Your task to perform on an android device: Open notification settings Image 0: 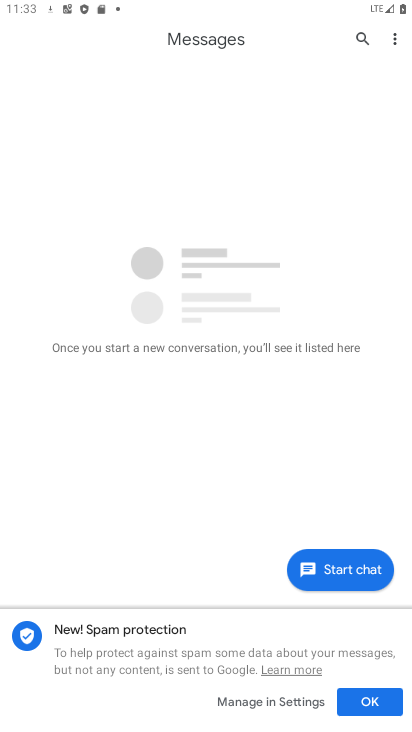
Step 0: press home button
Your task to perform on an android device: Open notification settings Image 1: 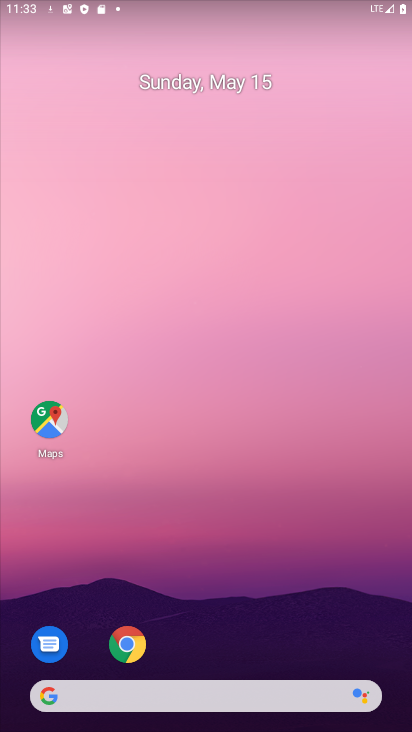
Step 1: drag from (236, 720) to (156, 311)
Your task to perform on an android device: Open notification settings Image 2: 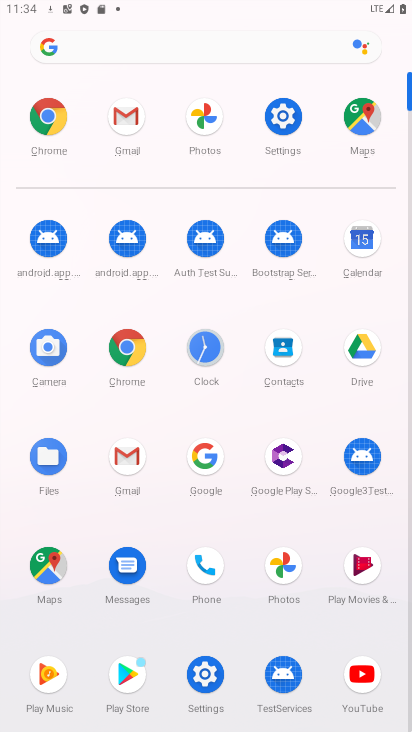
Step 2: click (281, 121)
Your task to perform on an android device: Open notification settings Image 3: 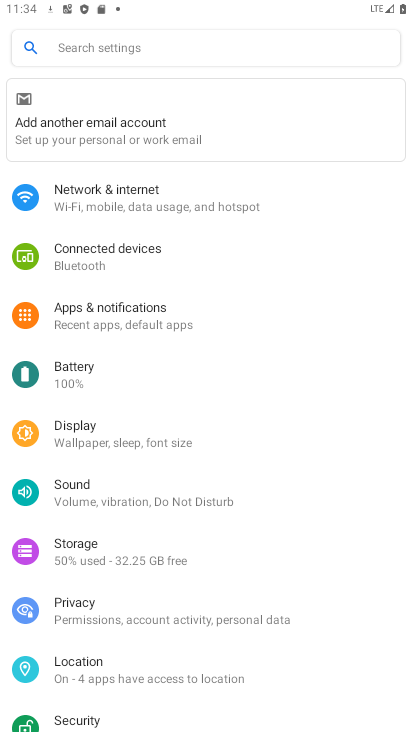
Step 3: click (104, 42)
Your task to perform on an android device: Open notification settings Image 4: 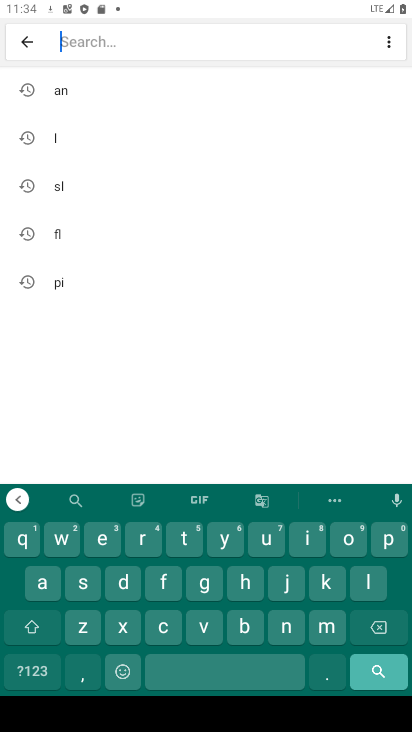
Step 4: click (289, 628)
Your task to perform on an android device: Open notification settings Image 5: 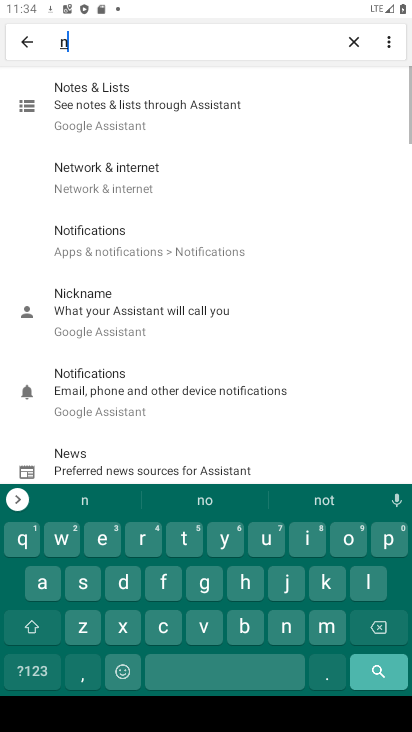
Step 5: click (346, 545)
Your task to perform on an android device: Open notification settings Image 6: 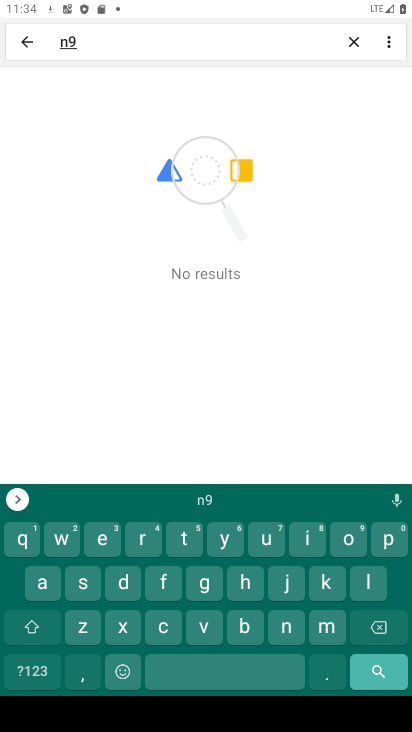
Step 6: click (395, 627)
Your task to perform on an android device: Open notification settings Image 7: 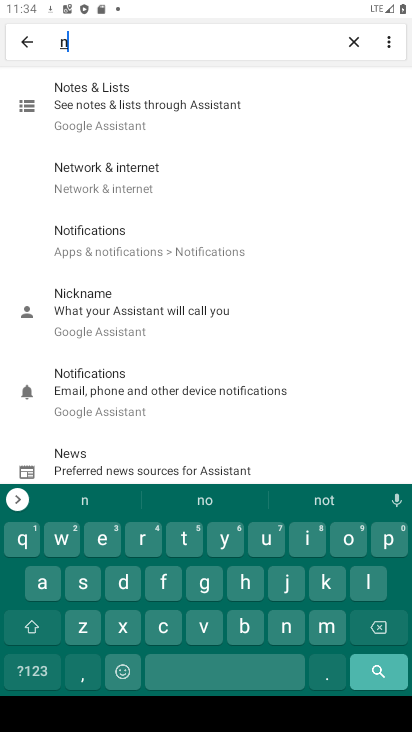
Step 7: click (346, 535)
Your task to perform on an android device: Open notification settings Image 8: 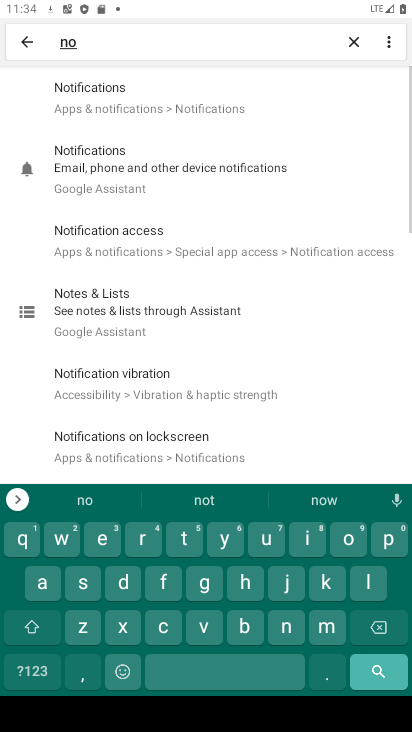
Step 8: click (97, 97)
Your task to perform on an android device: Open notification settings Image 9: 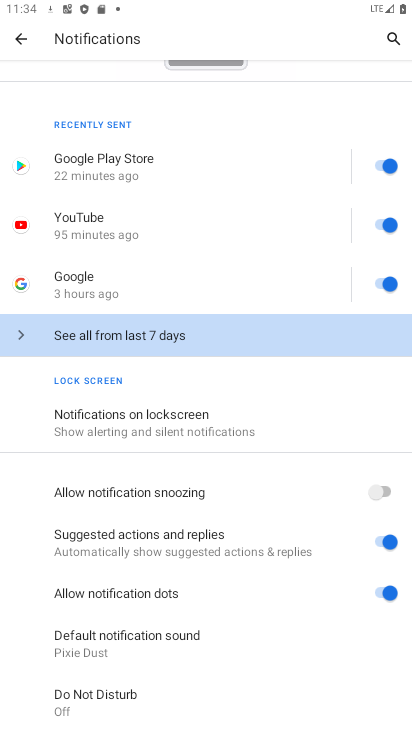
Step 9: click (114, 415)
Your task to perform on an android device: Open notification settings Image 10: 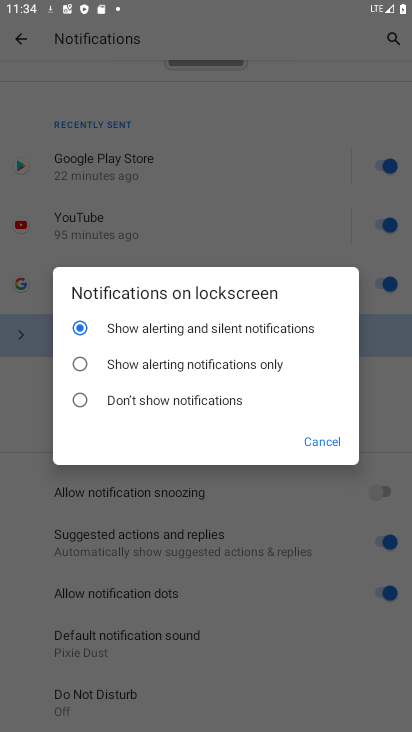
Step 10: task complete